Your task to perform on an android device: open app "Google Find My Device" Image 0: 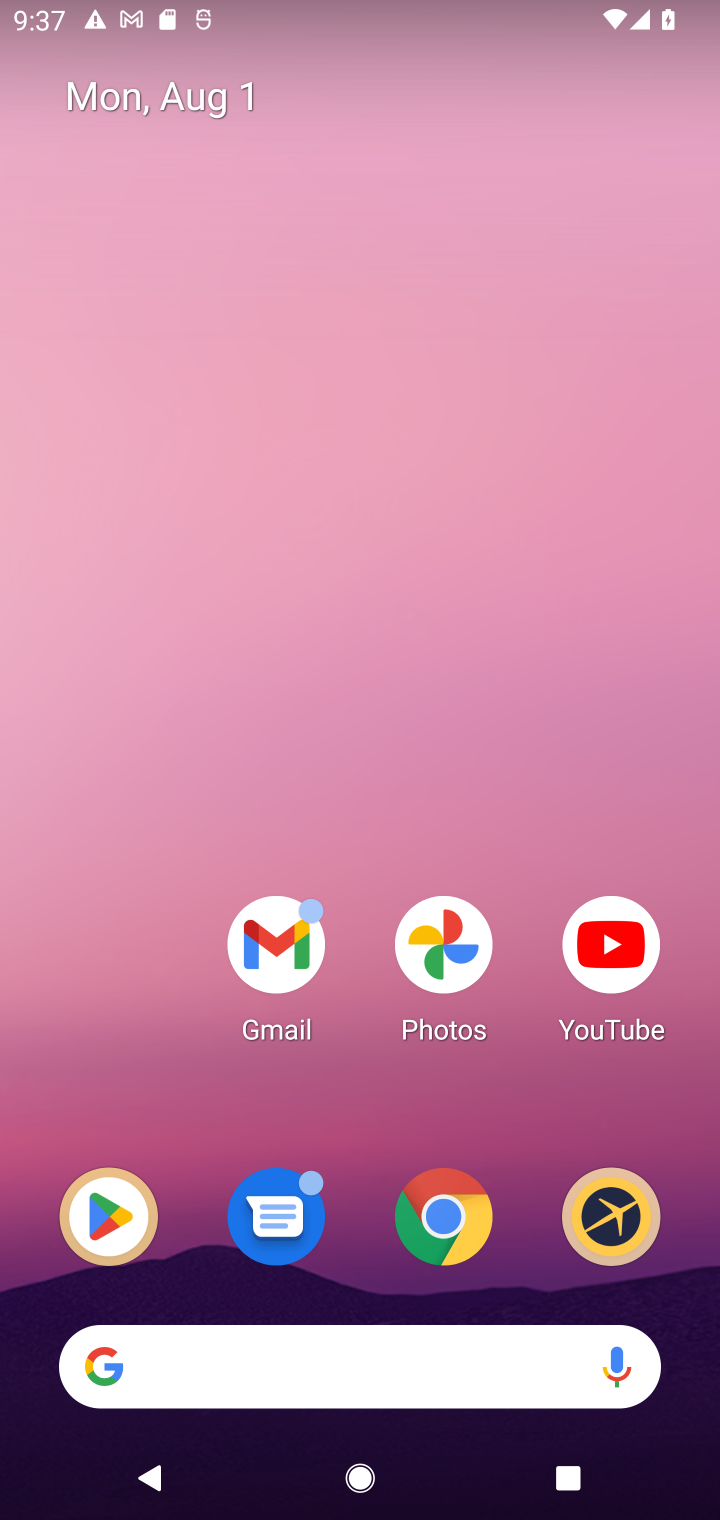
Step 0: click (103, 1226)
Your task to perform on an android device: open app "Google Find My Device" Image 1: 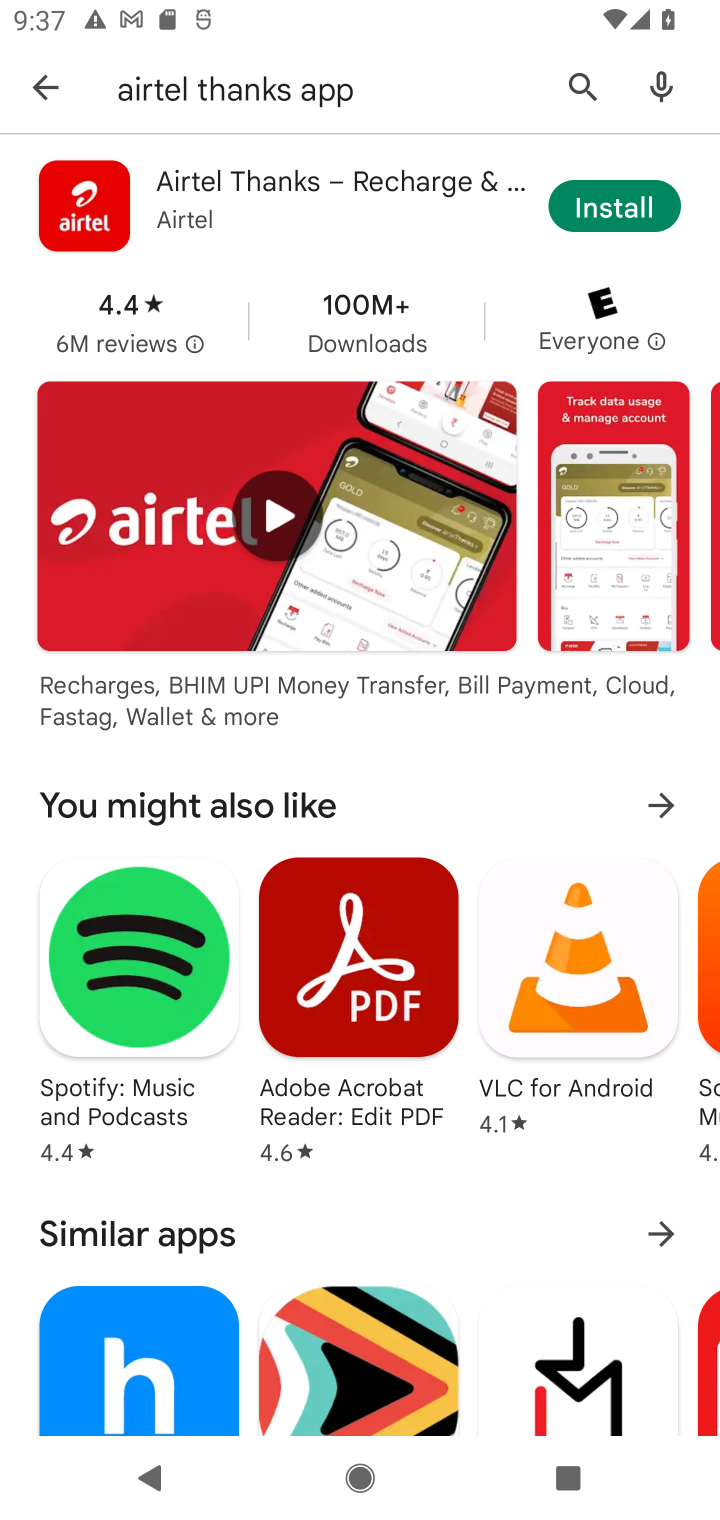
Step 1: click (583, 73)
Your task to perform on an android device: open app "Google Find My Device" Image 2: 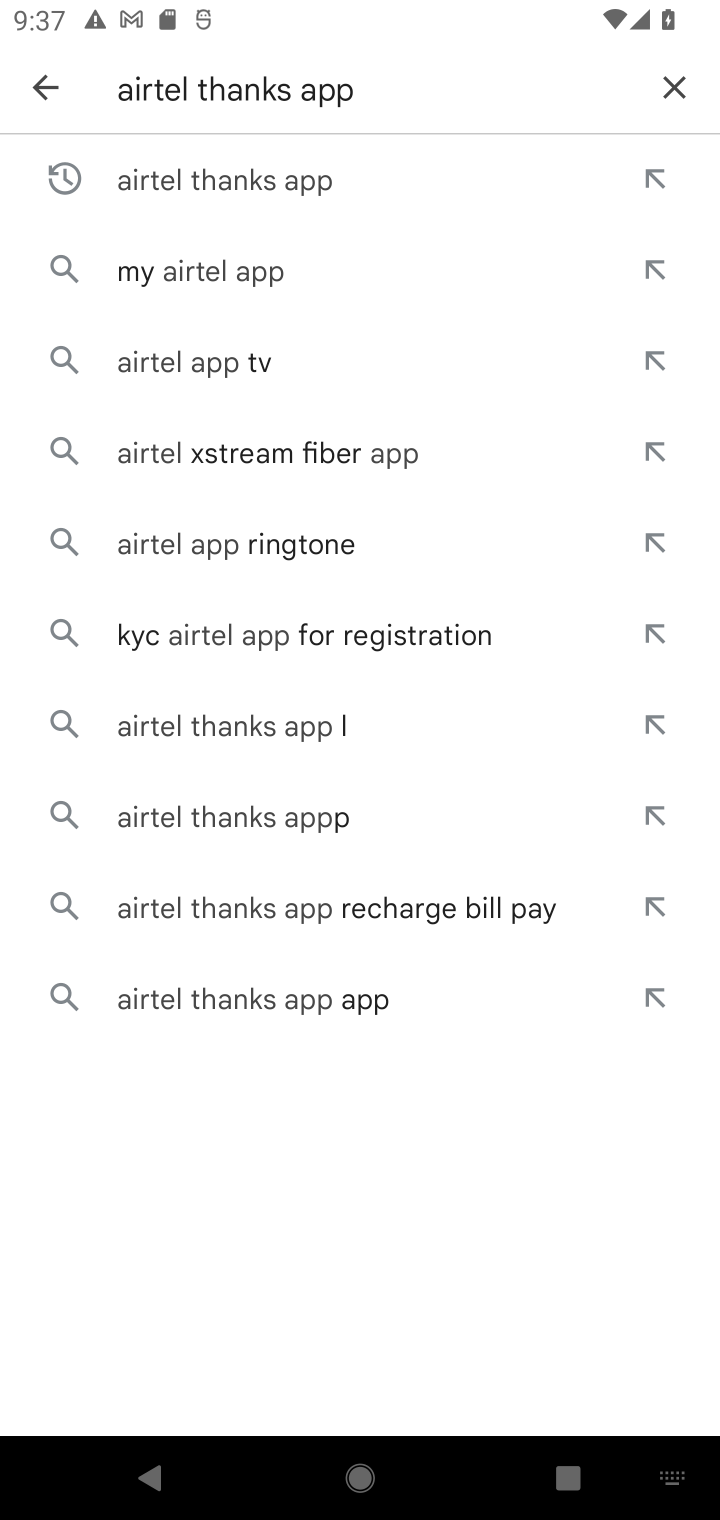
Step 2: click (669, 91)
Your task to perform on an android device: open app "Google Find My Device" Image 3: 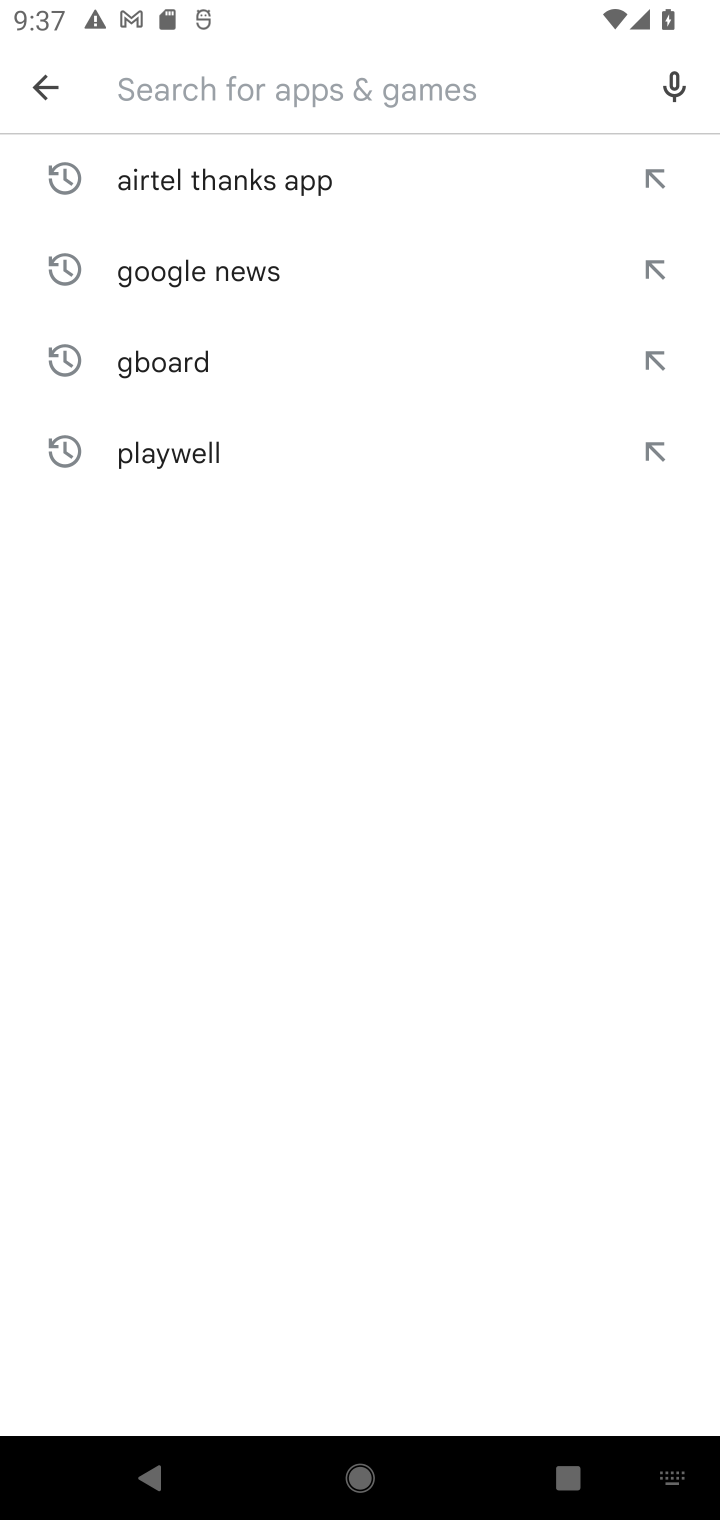
Step 3: type "Google Find My Device"
Your task to perform on an android device: open app "Google Find My Device" Image 4: 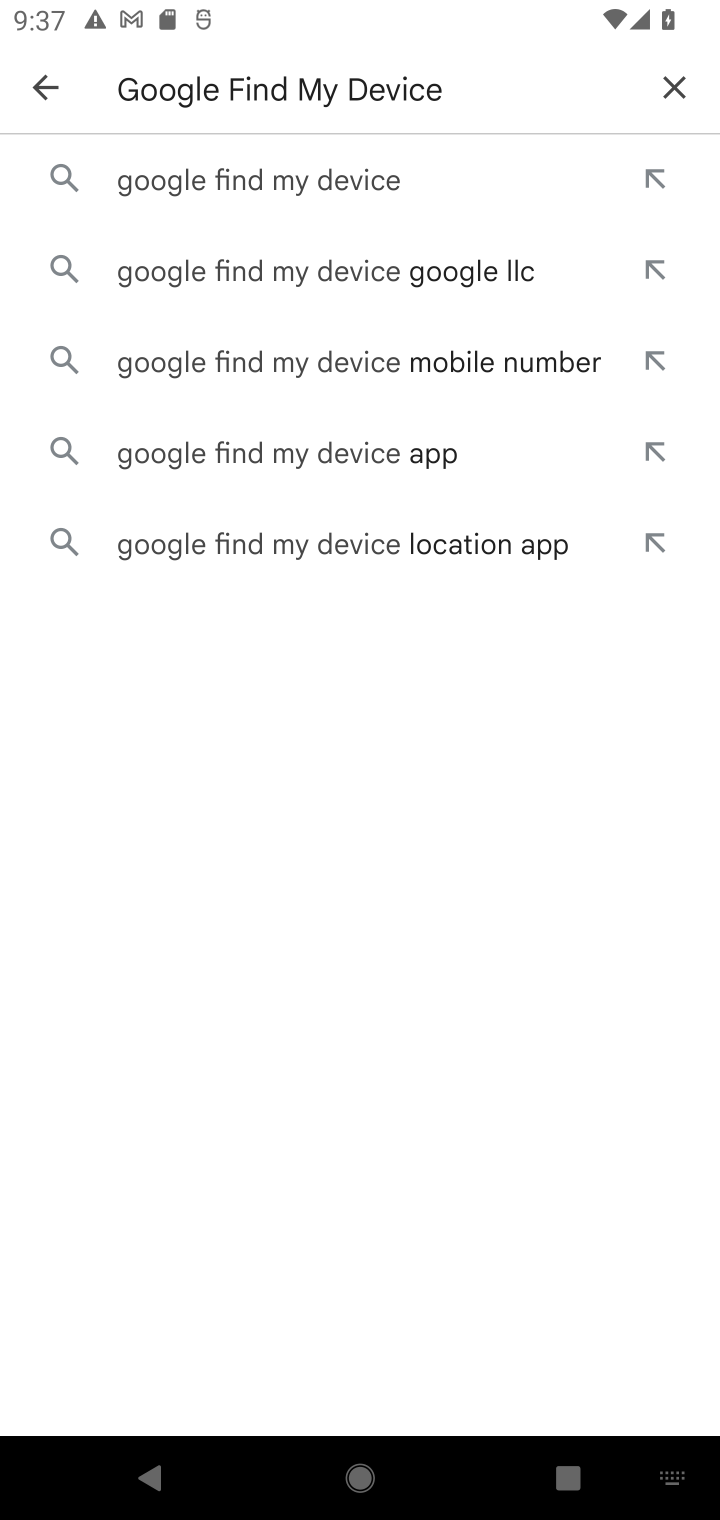
Step 4: click (236, 192)
Your task to perform on an android device: open app "Google Find My Device" Image 5: 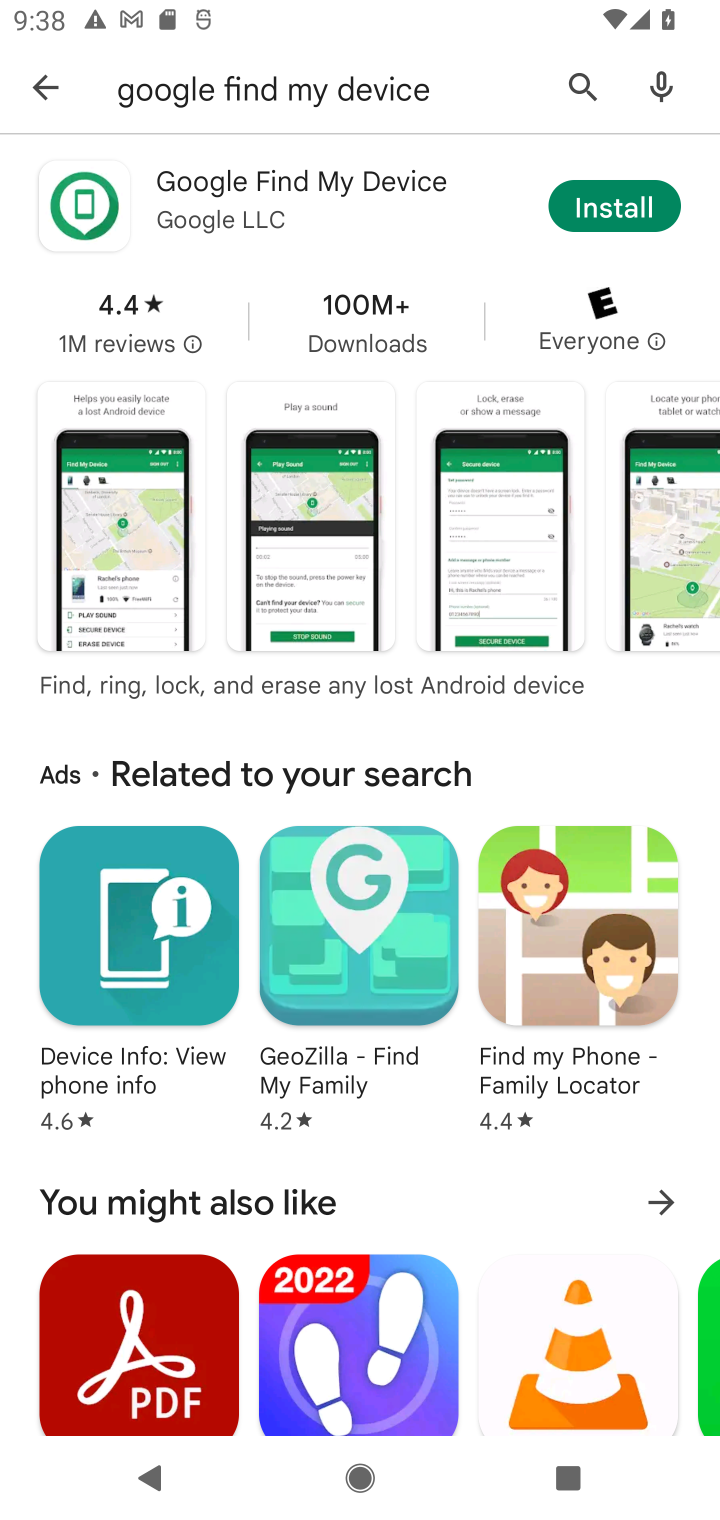
Step 5: task complete